Your task to perform on an android device: turn vacation reply on in the gmail app Image 0: 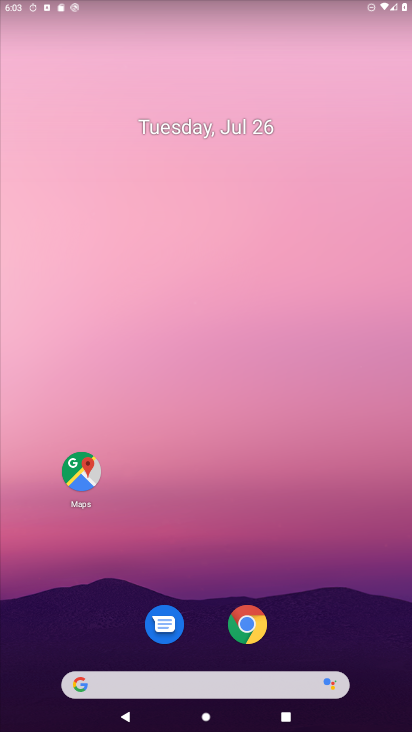
Step 0: drag from (305, 666) to (402, 511)
Your task to perform on an android device: turn vacation reply on in the gmail app Image 1: 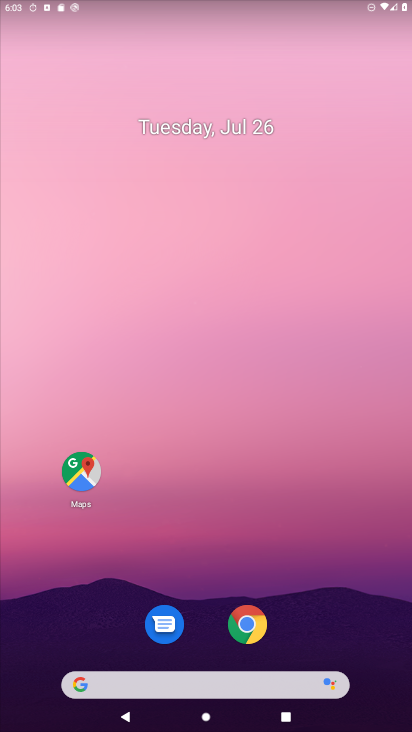
Step 1: drag from (268, 679) to (291, 14)
Your task to perform on an android device: turn vacation reply on in the gmail app Image 2: 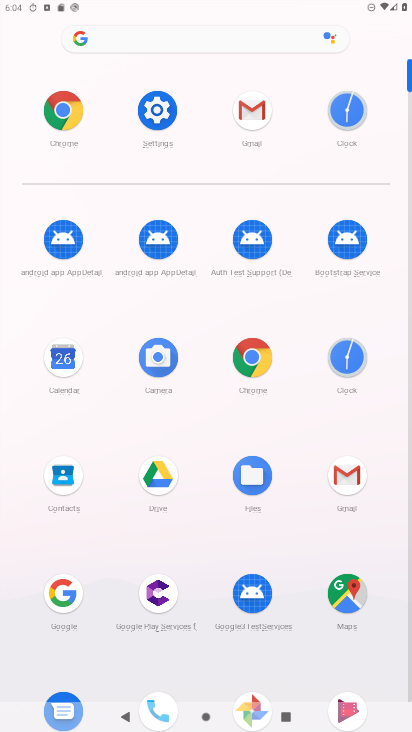
Step 2: click (336, 476)
Your task to perform on an android device: turn vacation reply on in the gmail app Image 3: 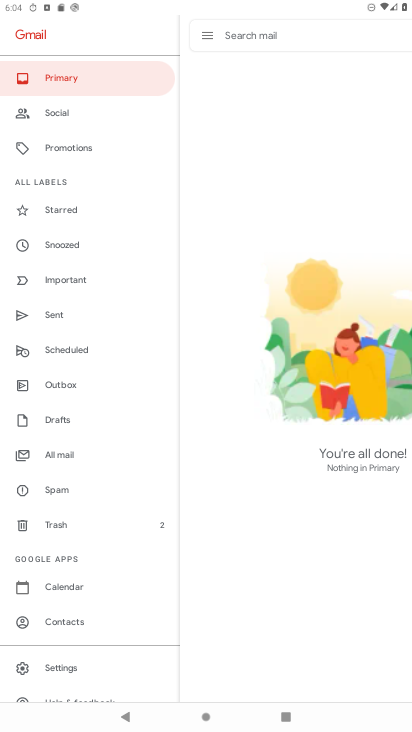
Step 3: click (62, 672)
Your task to perform on an android device: turn vacation reply on in the gmail app Image 4: 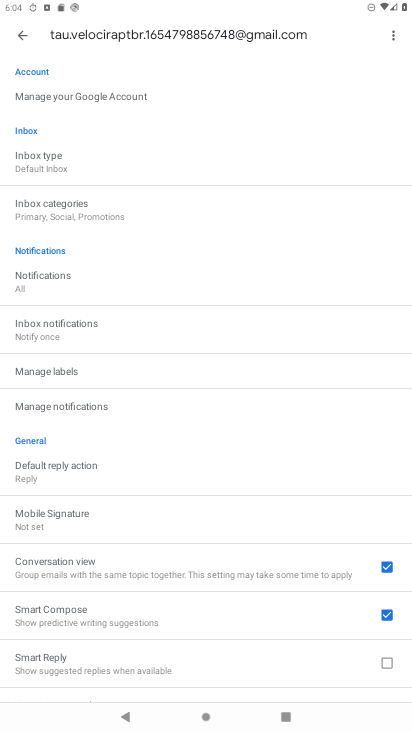
Step 4: drag from (143, 628) to (187, 326)
Your task to perform on an android device: turn vacation reply on in the gmail app Image 5: 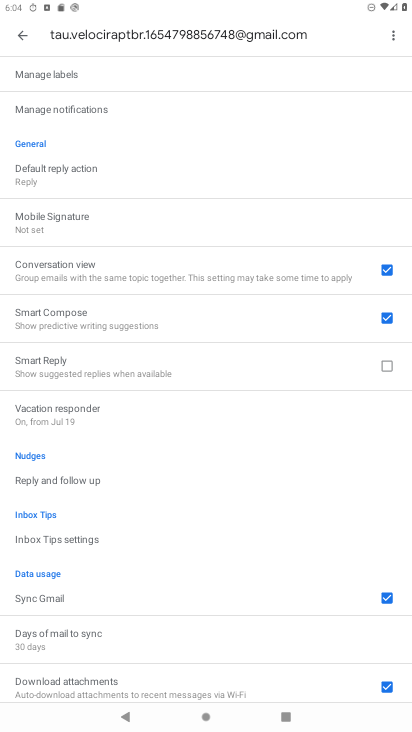
Step 5: click (126, 421)
Your task to perform on an android device: turn vacation reply on in the gmail app Image 6: 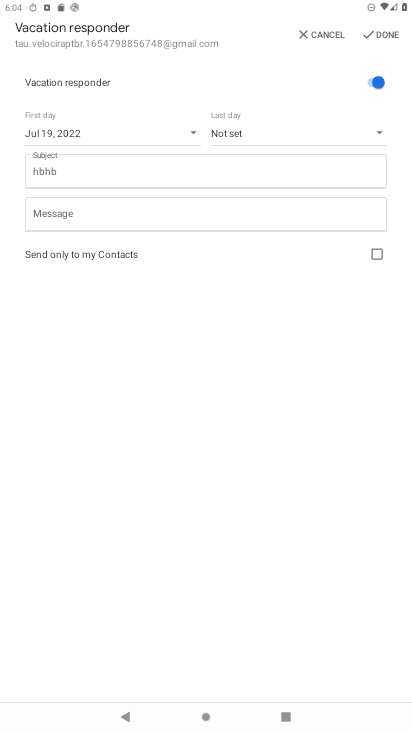
Step 6: click (376, 33)
Your task to perform on an android device: turn vacation reply on in the gmail app Image 7: 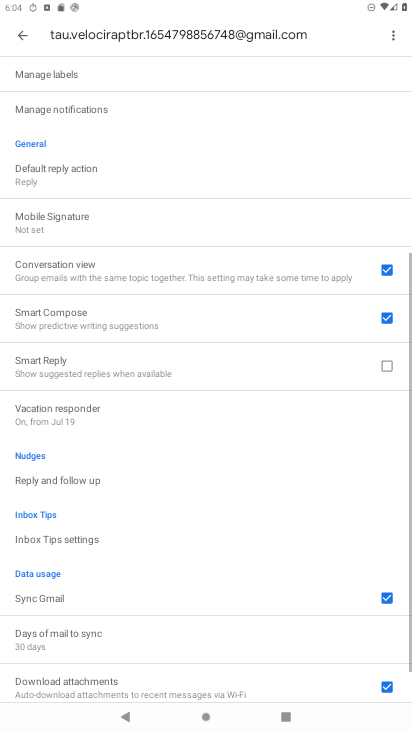
Step 7: task complete